Your task to perform on an android device: delete the emails in spam in the gmail app Image 0: 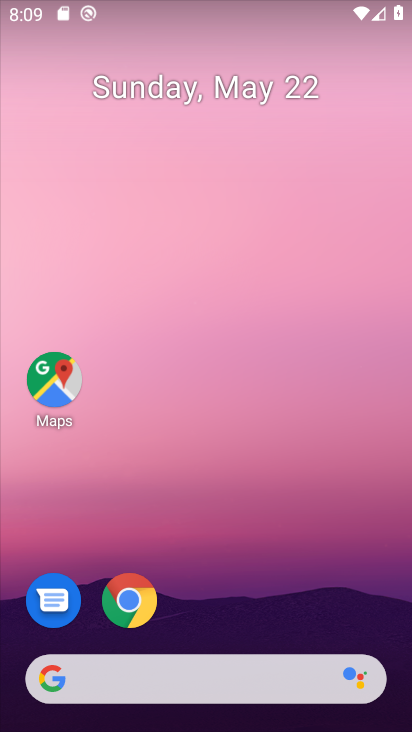
Step 0: drag from (203, 648) to (254, 253)
Your task to perform on an android device: delete the emails in spam in the gmail app Image 1: 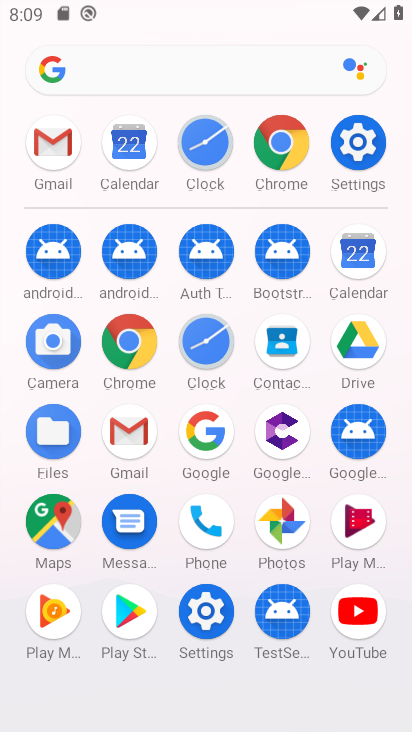
Step 1: click (146, 439)
Your task to perform on an android device: delete the emails in spam in the gmail app Image 2: 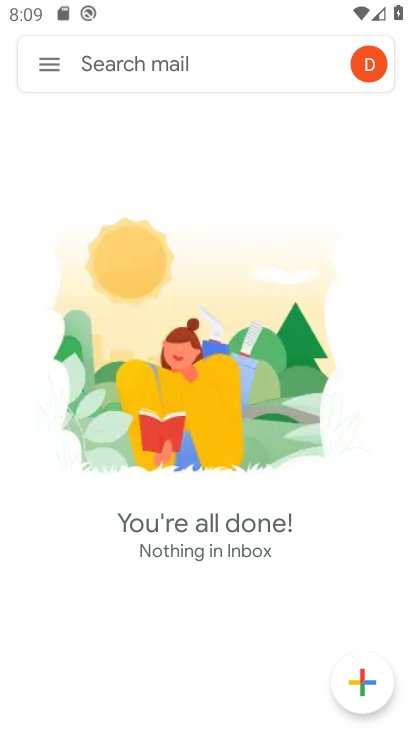
Step 2: click (35, 66)
Your task to perform on an android device: delete the emails in spam in the gmail app Image 3: 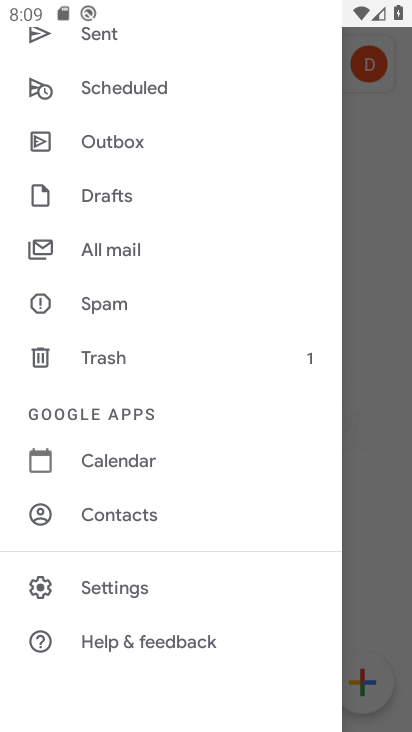
Step 3: click (108, 314)
Your task to perform on an android device: delete the emails in spam in the gmail app Image 4: 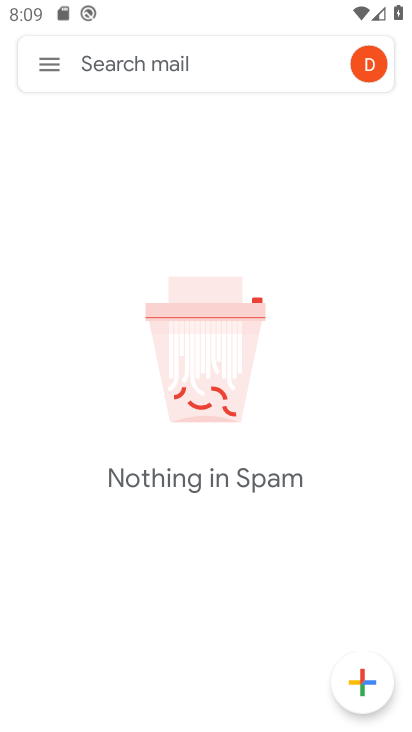
Step 4: task complete